Your task to perform on an android device: Open wifi settings Image 0: 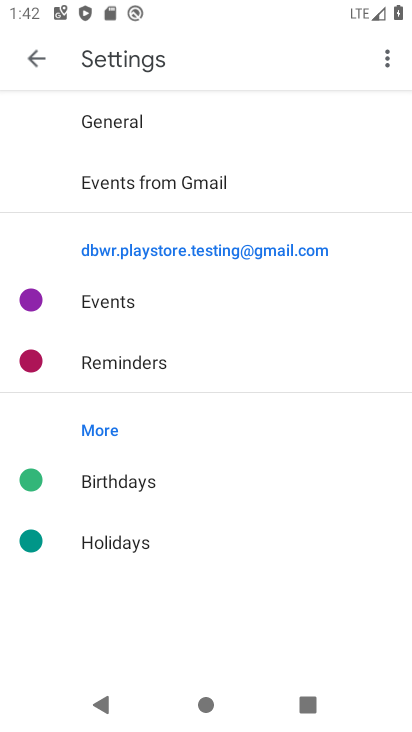
Step 0: drag from (186, 605) to (285, 115)
Your task to perform on an android device: Open wifi settings Image 1: 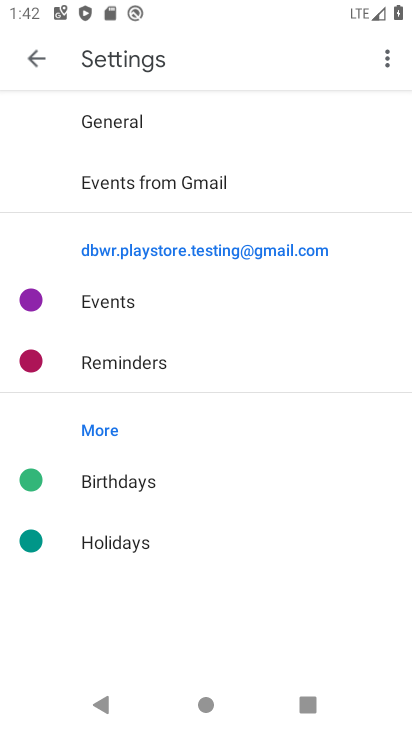
Step 1: press home button
Your task to perform on an android device: Open wifi settings Image 2: 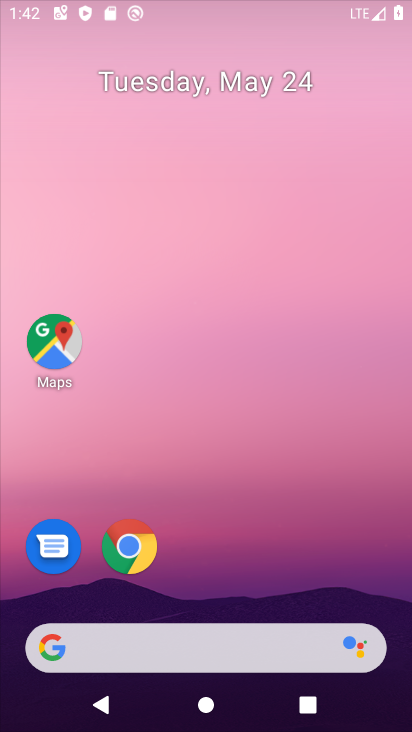
Step 2: drag from (244, 475) to (305, 141)
Your task to perform on an android device: Open wifi settings Image 3: 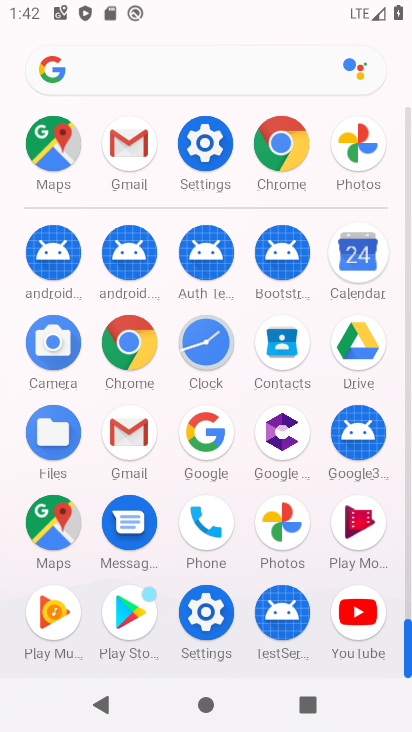
Step 3: click (197, 144)
Your task to perform on an android device: Open wifi settings Image 4: 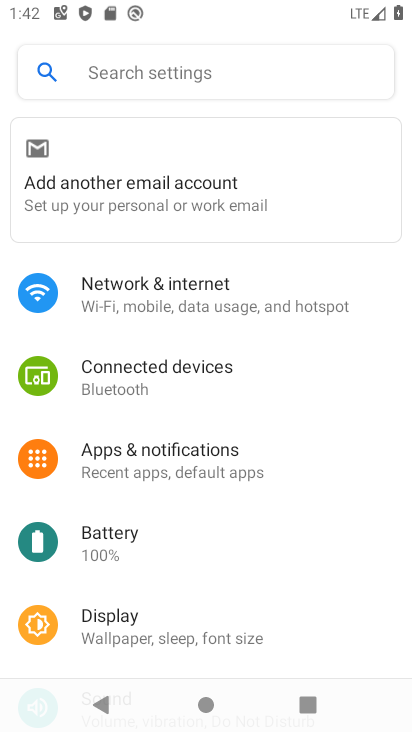
Step 4: click (172, 286)
Your task to perform on an android device: Open wifi settings Image 5: 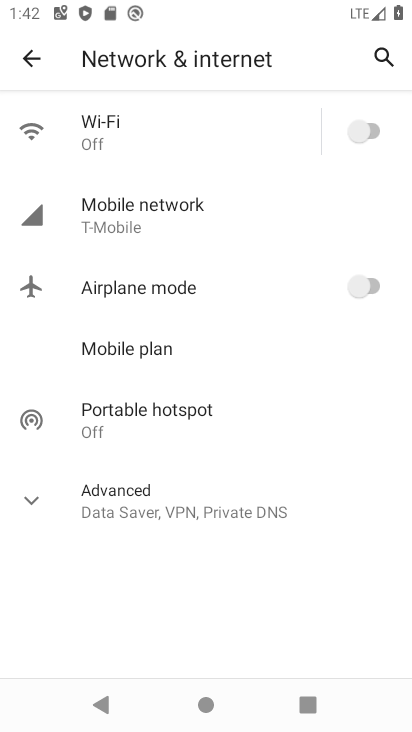
Step 5: click (178, 128)
Your task to perform on an android device: Open wifi settings Image 6: 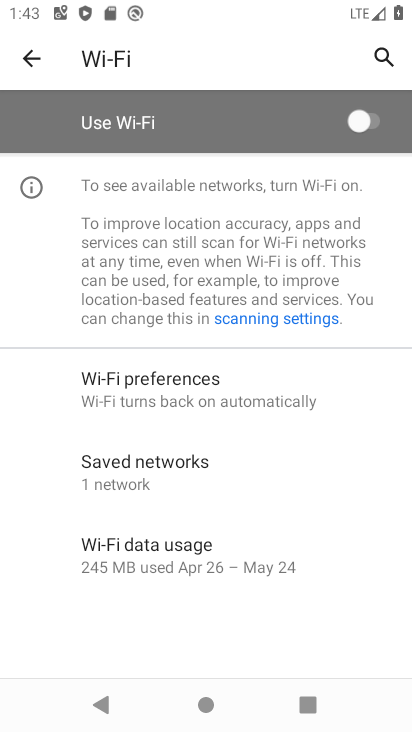
Step 6: task complete